Your task to perform on an android device: turn pop-ups on in chrome Image 0: 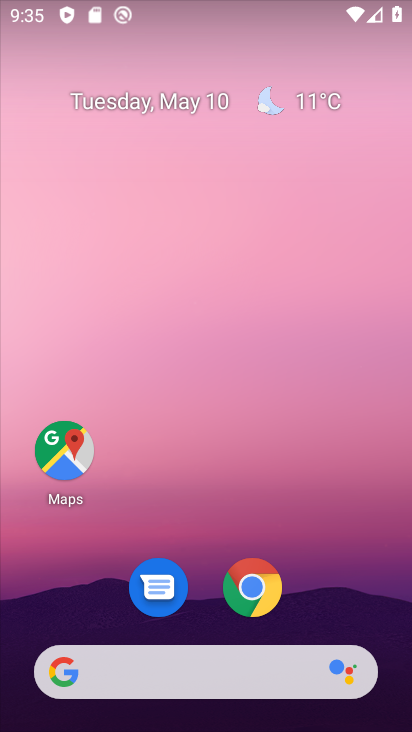
Step 0: click (274, 596)
Your task to perform on an android device: turn pop-ups on in chrome Image 1: 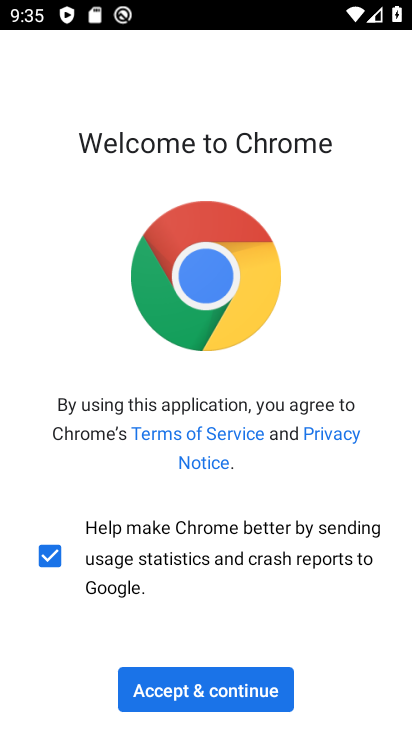
Step 1: click (219, 683)
Your task to perform on an android device: turn pop-ups on in chrome Image 2: 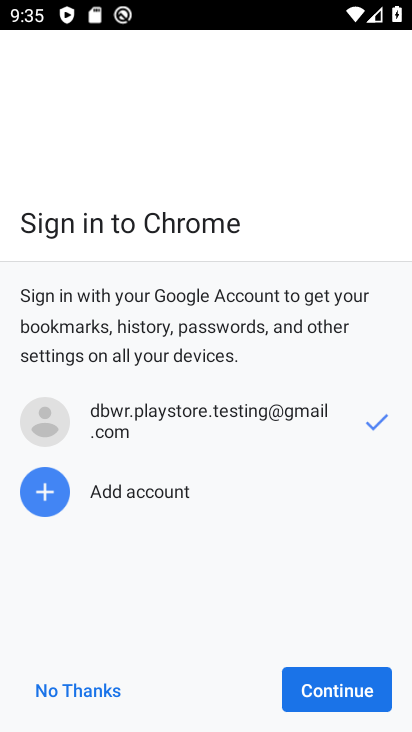
Step 2: click (365, 687)
Your task to perform on an android device: turn pop-ups on in chrome Image 3: 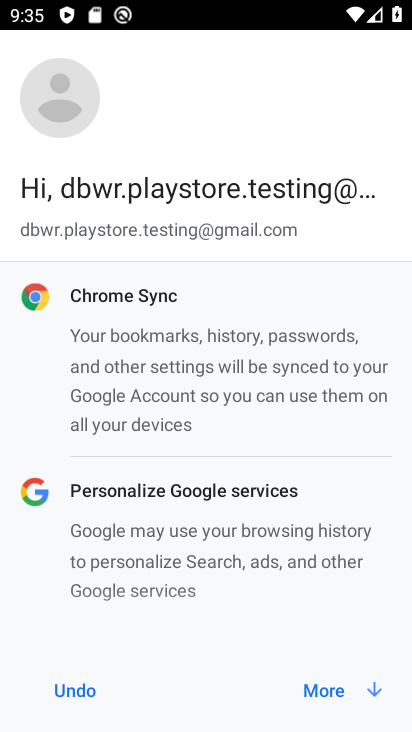
Step 3: click (338, 704)
Your task to perform on an android device: turn pop-ups on in chrome Image 4: 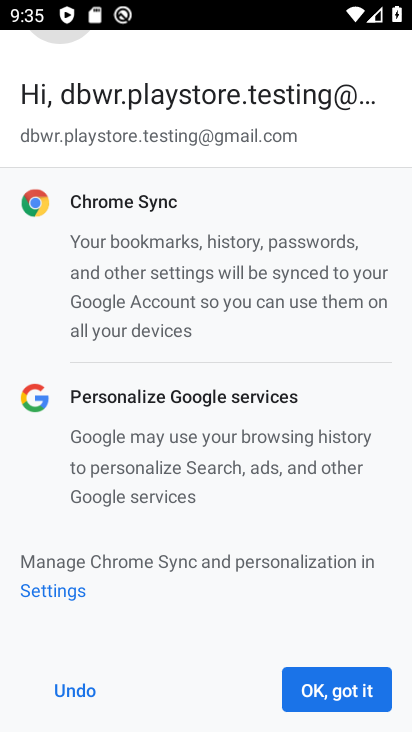
Step 4: click (341, 692)
Your task to perform on an android device: turn pop-ups on in chrome Image 5: 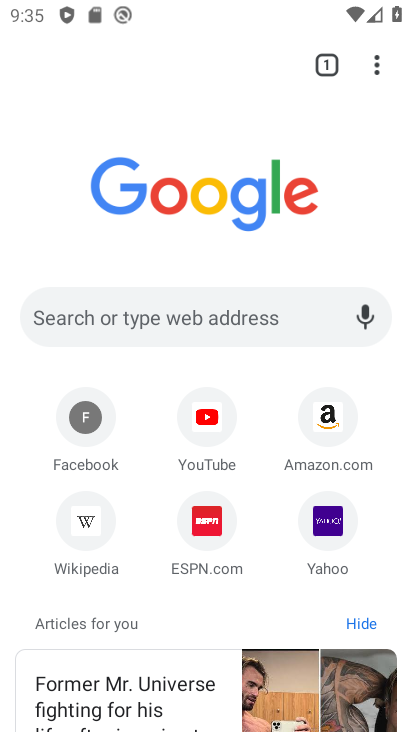
Step 5: click (376, 56)
Your task to perform on an android device: turn pop-ups on in chrome Image 6: 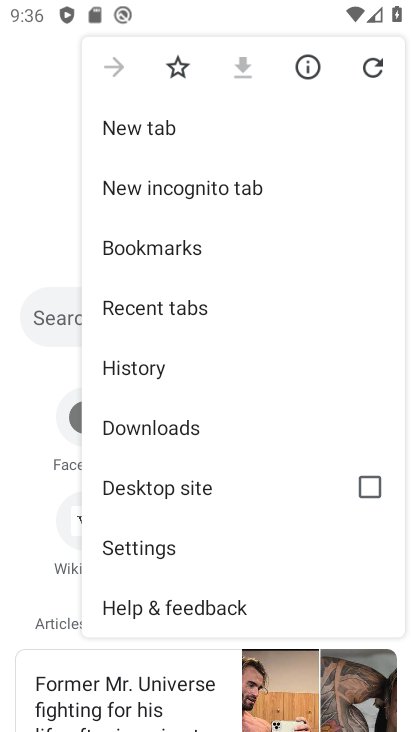
Step 6: click (151, 562)
Your task to perform on an android device: turn pop-ups on in chrome Image 7: 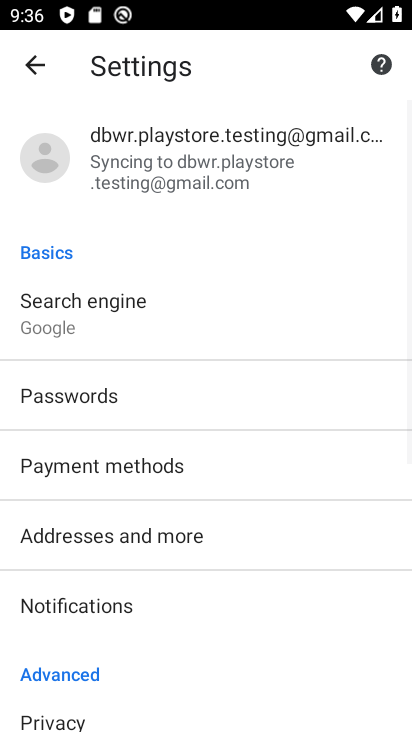
Step 7: drag from (134, 624) to (217, 238)
Your task to perform on an android device: turn pop-ups on in chrome Image 8: 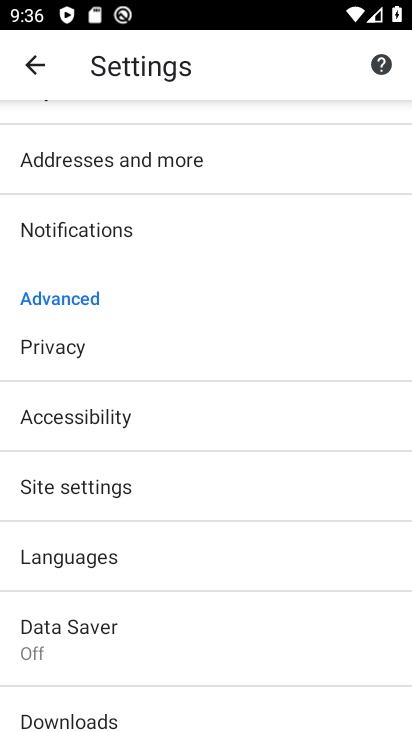
Step 8: drag from (131, 559) to (149, 412)
Your task to perform on an android device: turn pop-ups on in chrome Image 9: 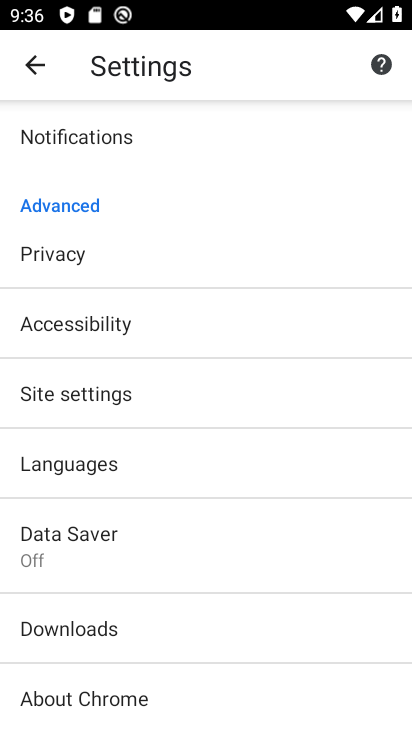
Step 9: click (108, 408)
Your task to perform on an android device: turn pop-ups on in chrome Image 10: 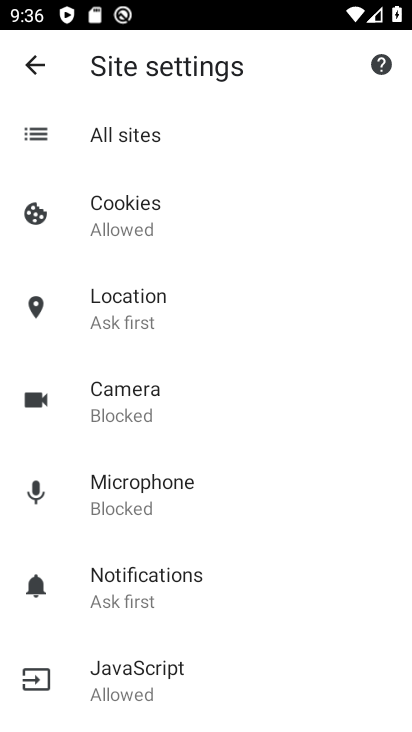
Step 10: drag from (132, 654) to (185, 353)
Your task to perform on an android device: turn pop-ups on in chrome Image 11: 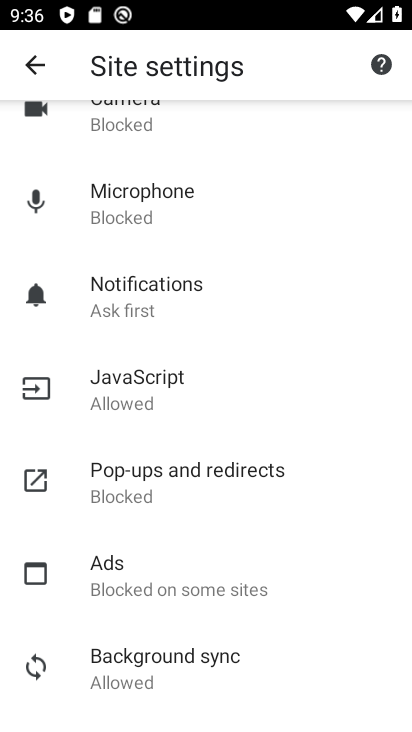
Step 11: click (154, 496)
Your task to perform on an android device: turn pop-ups on in chrome Image 12: 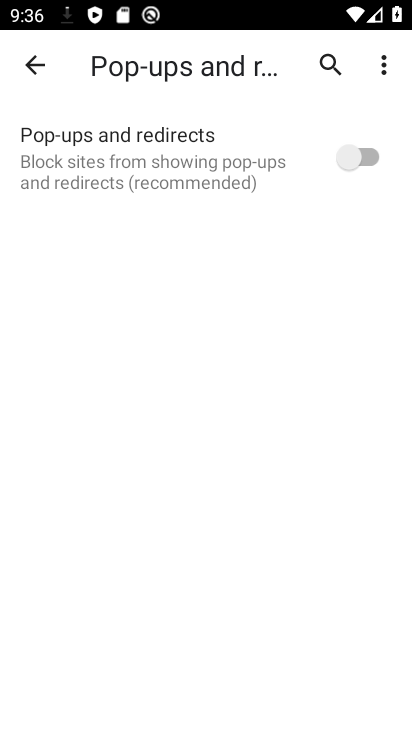
Step 12: click (376, 166)
Your task to perform on an android device: turn pop-ups on in chrome Image 13: 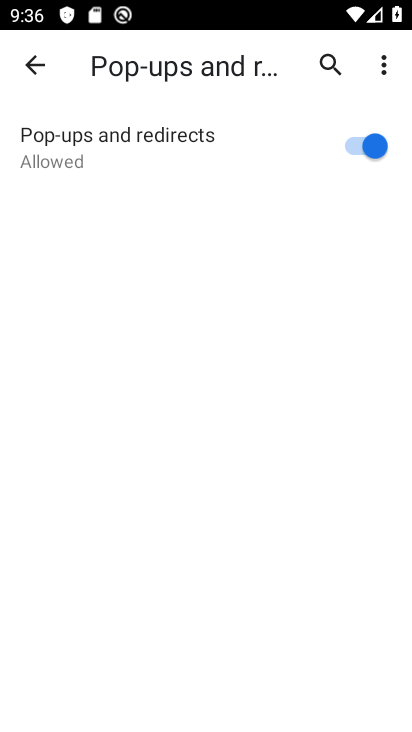
Step 13: task complete